Your task to perform on an android device: Go to Google Image 0: 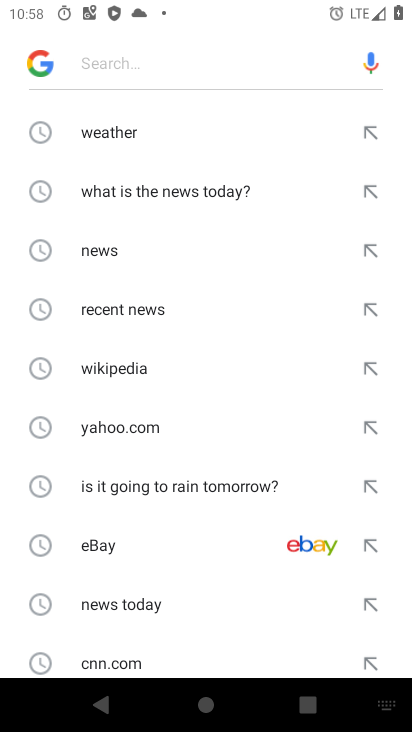
Step 0: press home button
Your task to perform on an android device: Go to Google Image 1: 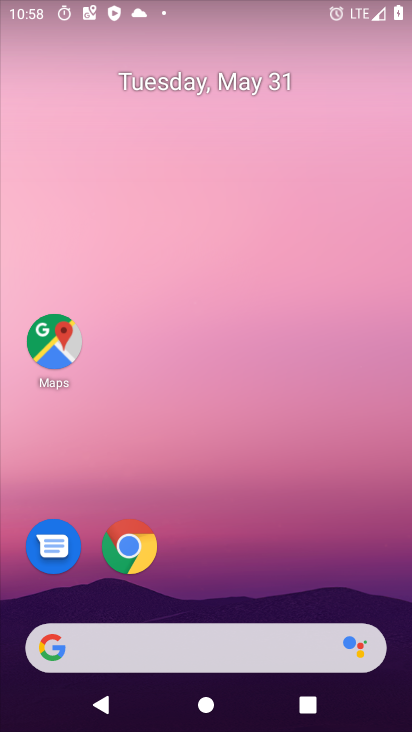
Step 1: click (253, 640)
Your task to perform on an android device: Go to Google Image 2: 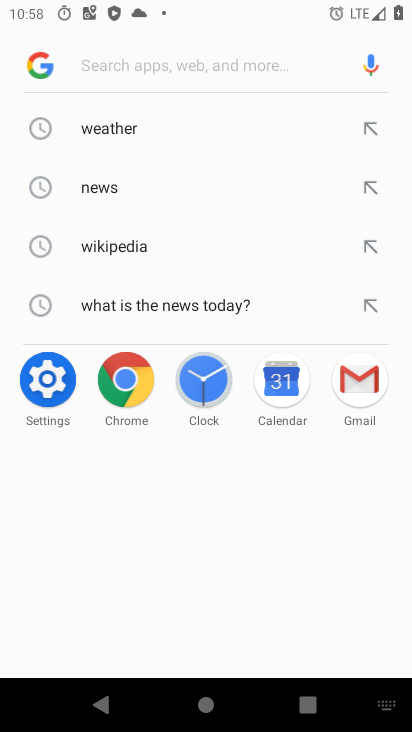
Step 2: task complete